Your task to perform on an android device: Open settings on Google Maps Image 0: 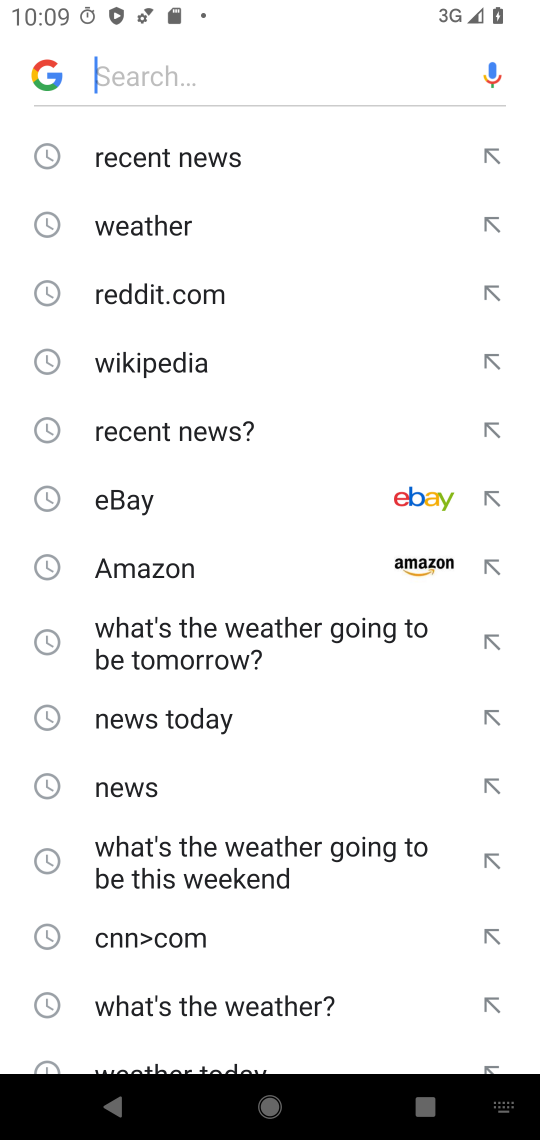
Step 0: press back button
Your task to perform on an android device: Open settings on Google Maps Image 1: 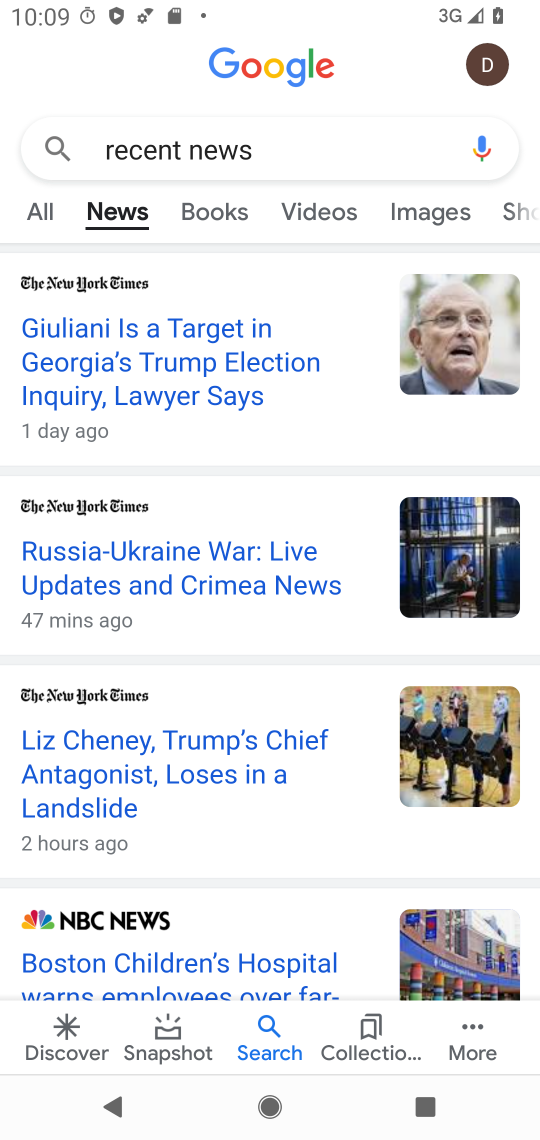
Step 1: press back button
Your task to perform on an android device: Open settings on Google Maps Image 2: 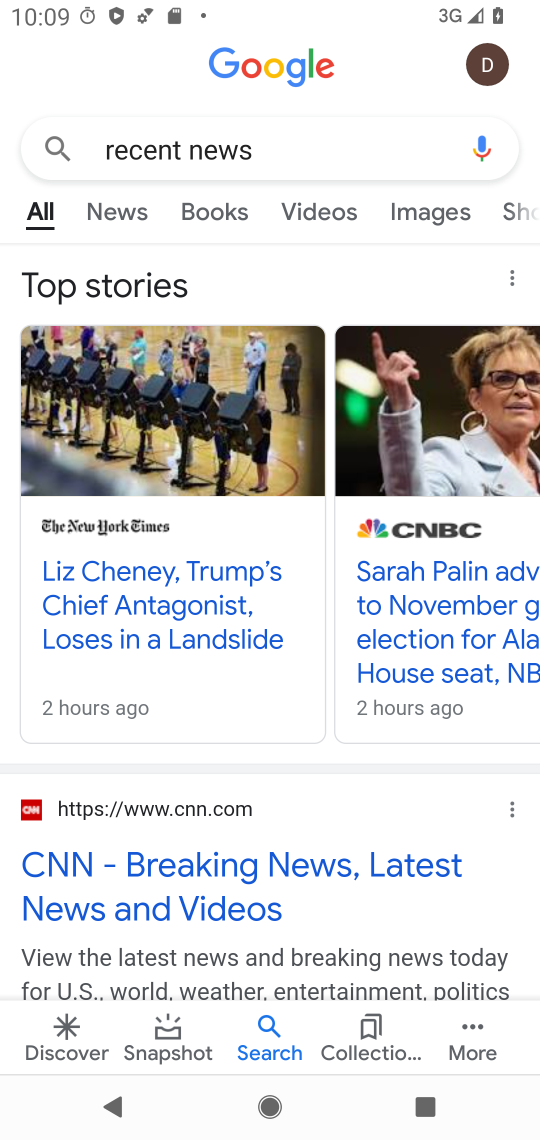
Step 2: press home button
Your task to perform on an android device: Open settings on Google Maps Image 3: 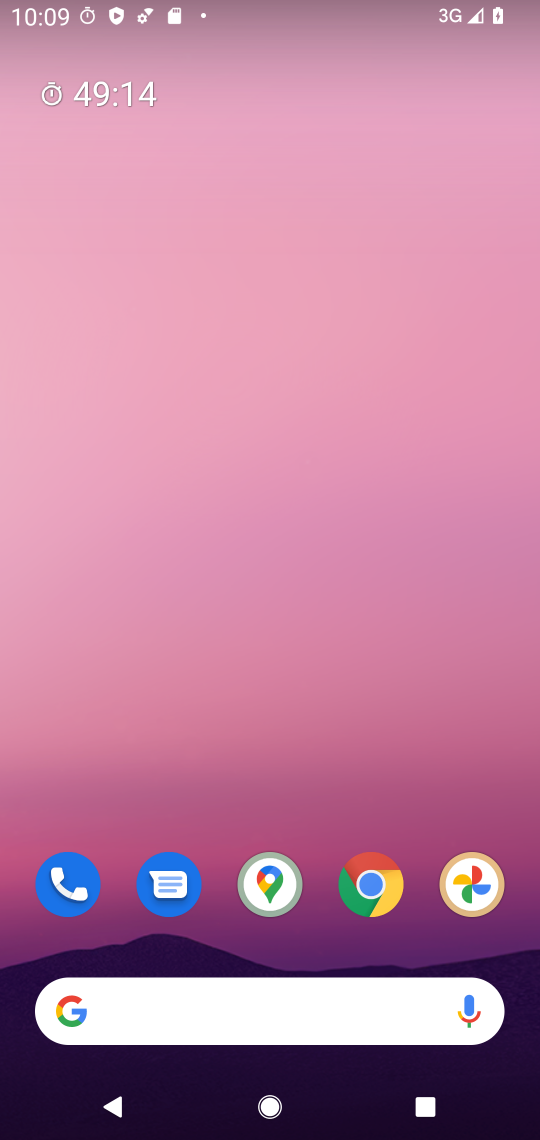
Step 3: click (262, 878)
Your task to perform on an android device: Open settings on Google Maps Image 4: 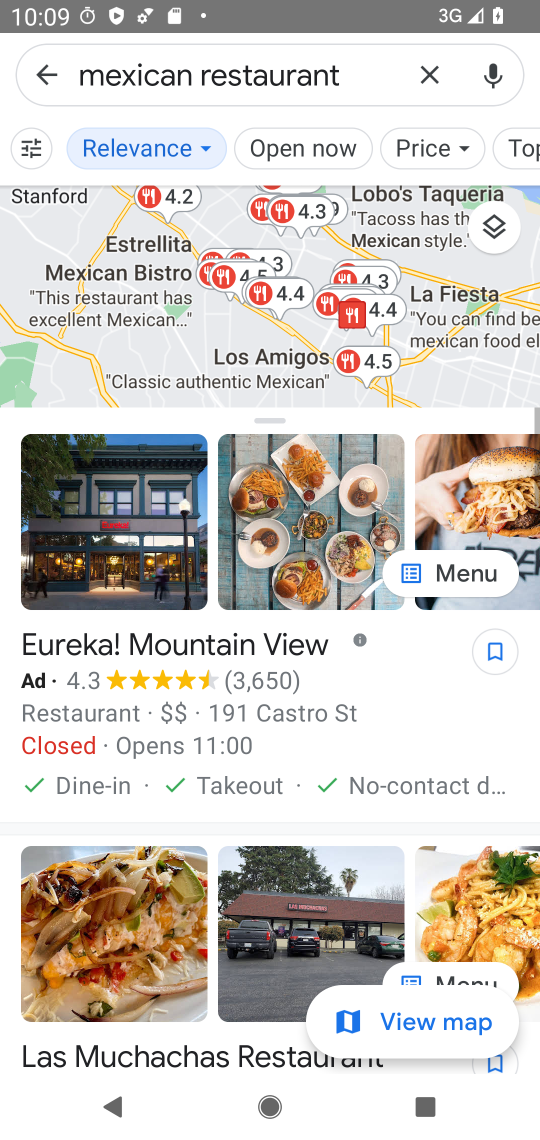
Step 4: click (52, 72)
Your task to perform on an android device: Open settings on Google Maps Image 5: 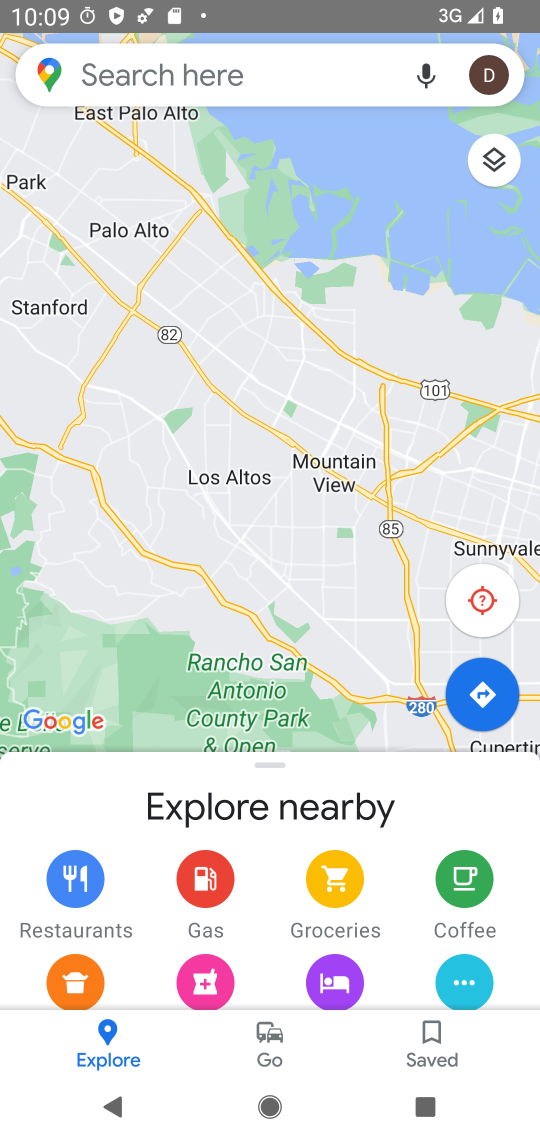
Step 5: click (499, 63)
Your task to perform on an android device: Open settings on Google Maps Image 6: 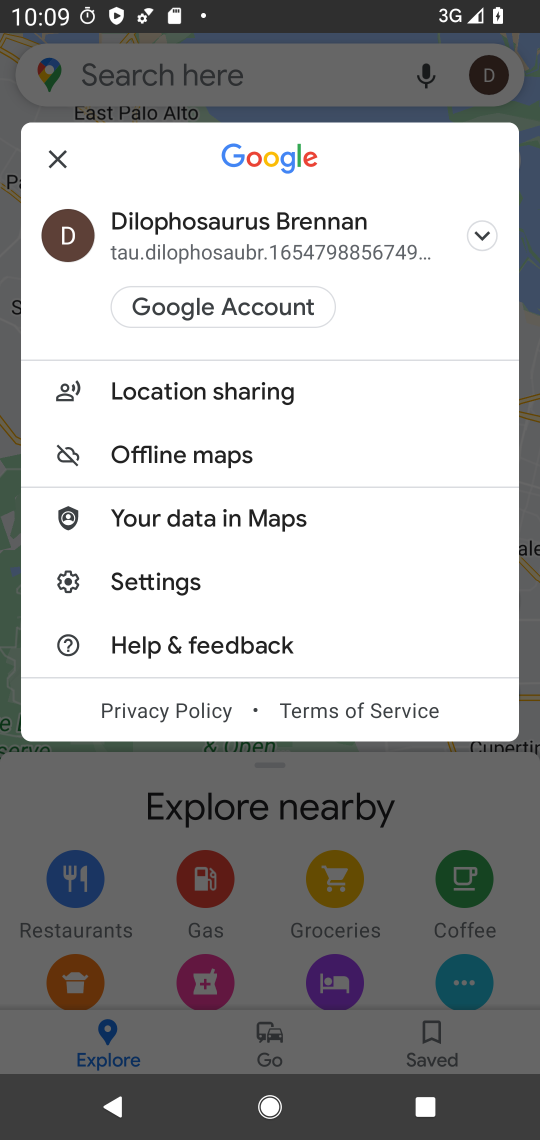
Step 6: click (209, 564)
Your task to perform on an android device: Open settings on Google Maps Image 7: 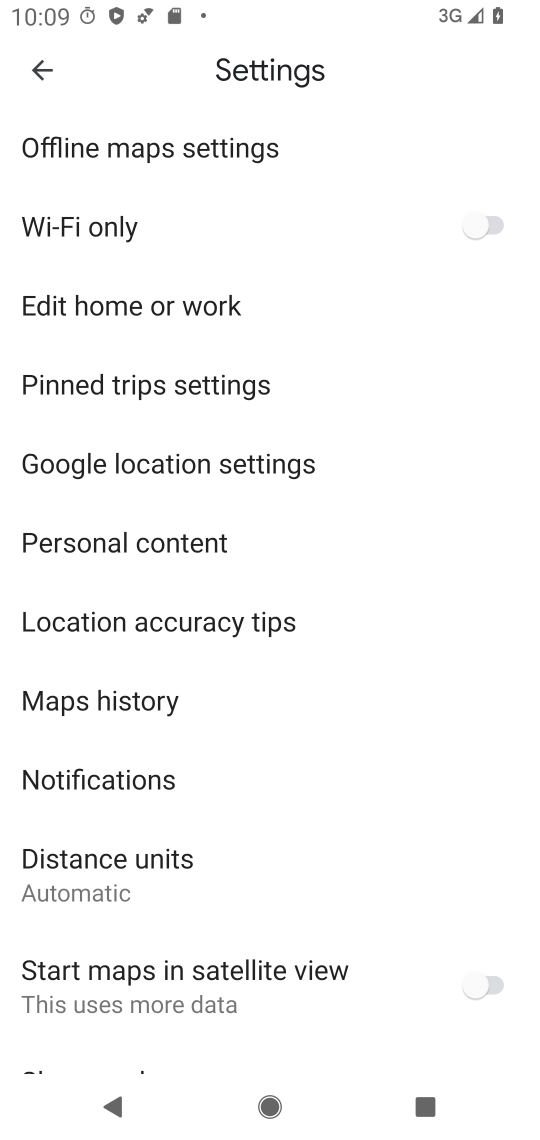
Step 7: task complete